Your task to perform on an android device: turn on bluetooth scan Image 0: 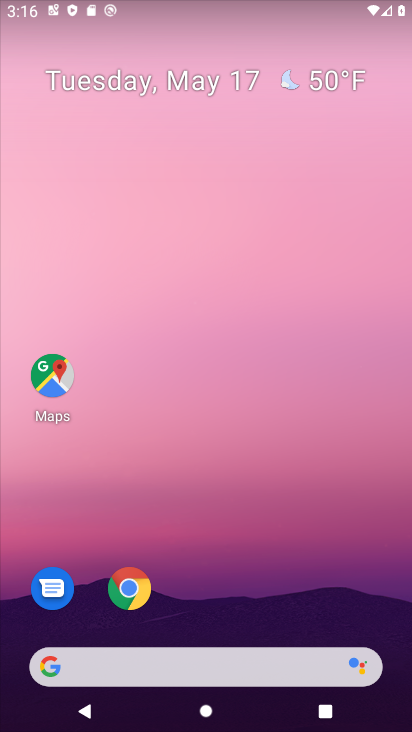
Step 0: drag from (243, 638) to (330, 102)
Your task to perform on an android device: turn on bluetooth scan Image 1: 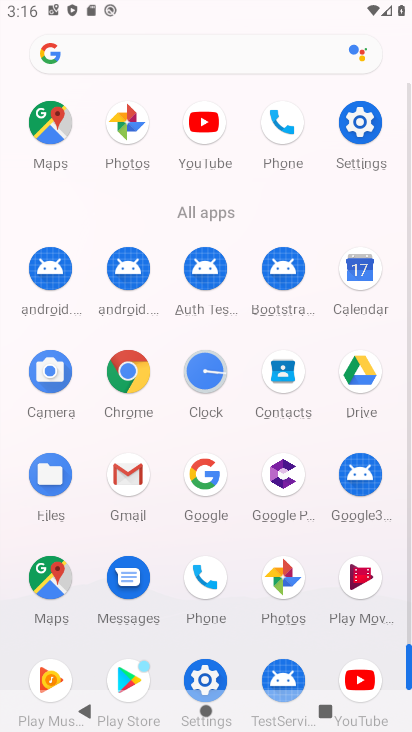
Step 1: drag from (156, 582) to (189, 376)
Your task to perform on an android device: turn on bluetooth scan Image 2: 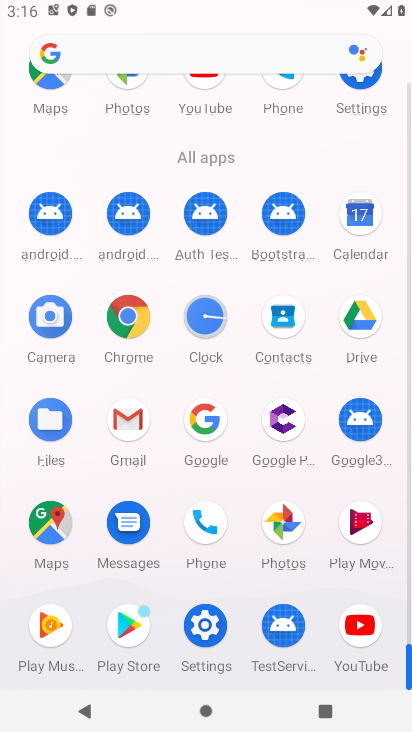
Step 2: click (213, 636)
Your task to perform on an android device: turn on bluetooth scan Image 3: 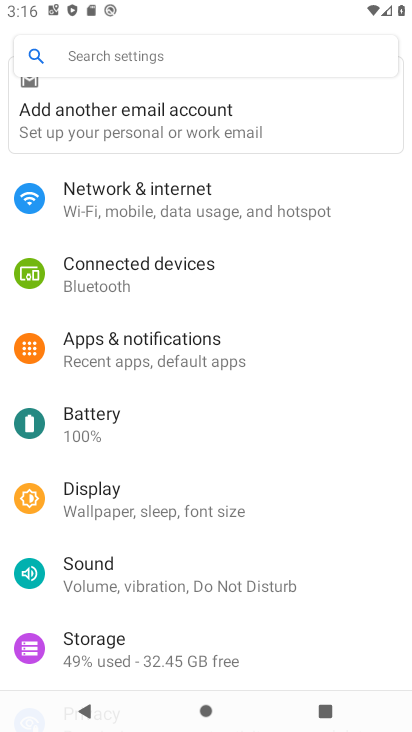
Step 3: click (227, 267)
Your task to perform on an android device: turn on bluetooth scan Image 4: 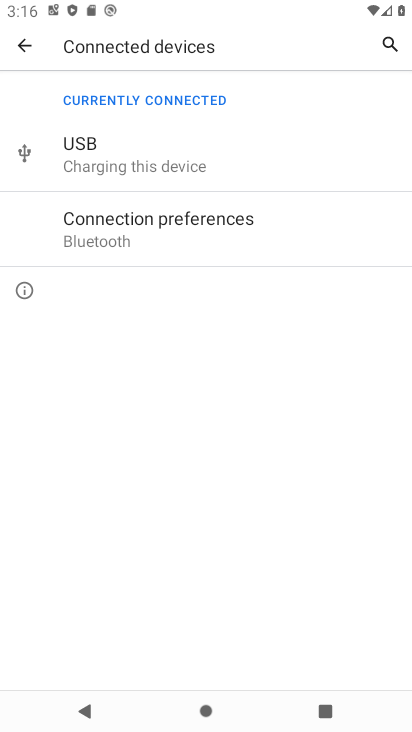
Step 4: click (245, 229)
Your task to perform on an android device: turn on bluetooth scan Image 5: 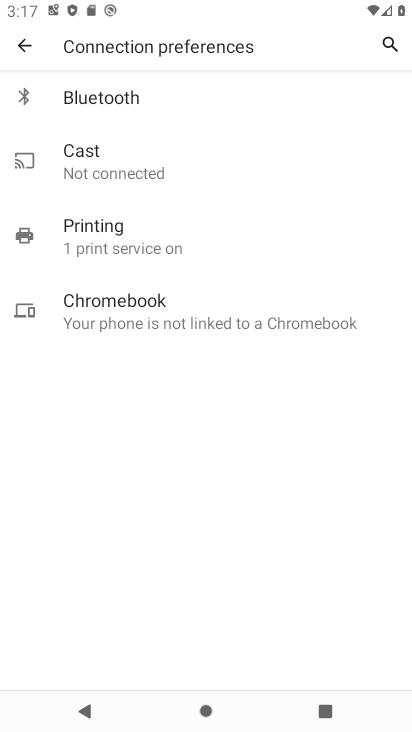
Step 5: click (179, 94)
Your task to perform on an android device: turn on bluetooth scan Image 6: 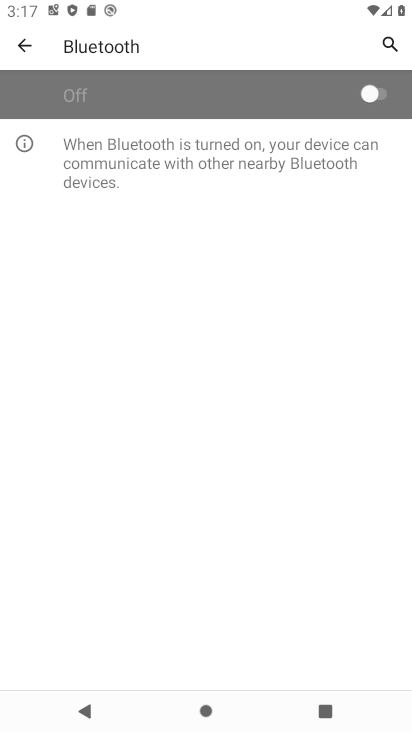
Step 6: task complete